Your task to perform on an android device: toggle airplane mode Image 0: 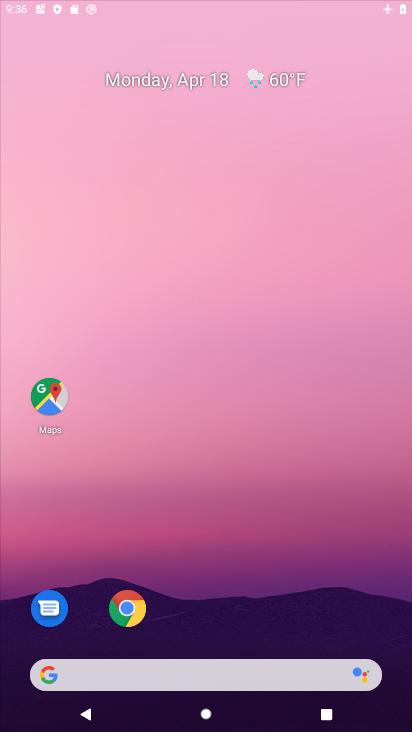
Step 0: click (293, 79)
Your task to perform on an android device: toggle airplane mode Image 1: 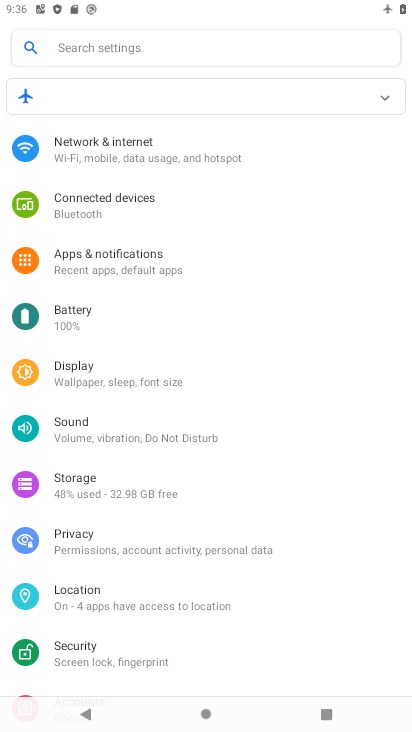
Step 1: drag from (190, 604) to (272, 198)
Your task to perform on an android device: toggle airplane mode Image 2: 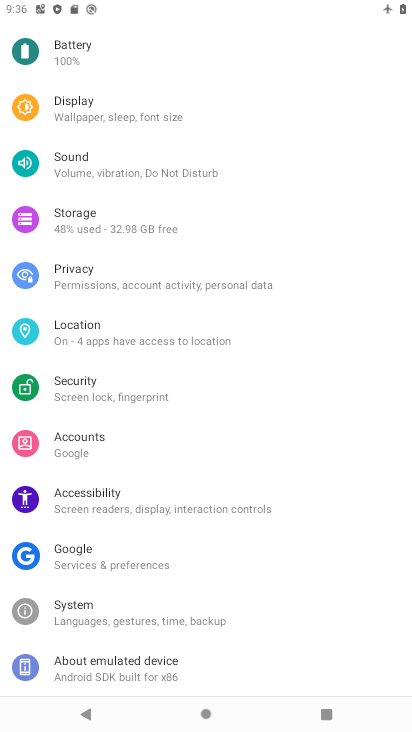
Step 2: drag from (210, 260) to (278, 729)
Your task to perform on an android device: toggle airplane mode Image 3: 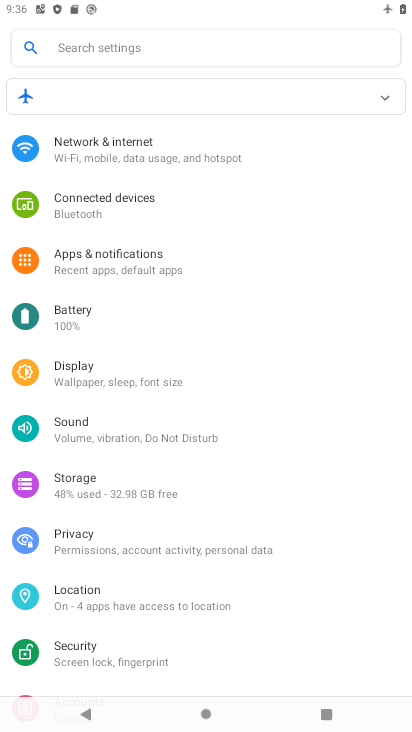
Step 3: click (199, 151)
Your task to perform on an android device: toggle airplane mode Image 4: 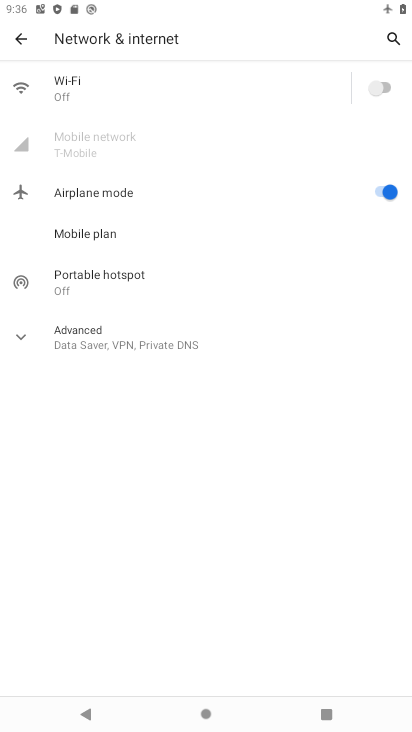
Step 4: click (377, 190)
Your task to perform on an android device: toggle airplane mode Image 5: 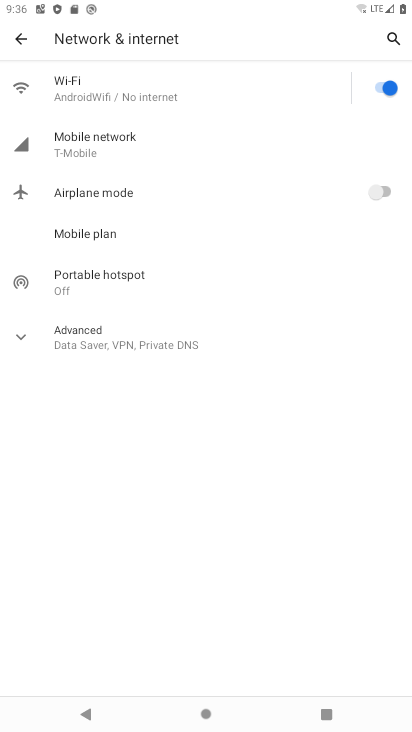
Step 5: task complete